Your task to perform on an android device: View the shopping cart on ebay. Search for logitech g903 on ebay, select the first entry, add it to the cart, then select checkout. Image 0: 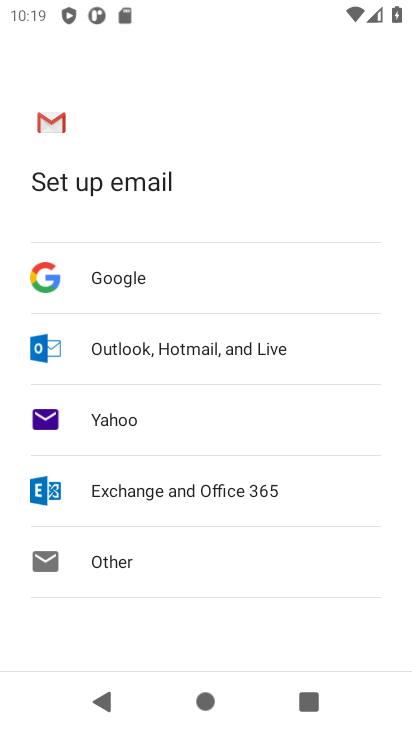
Step 0: press home button
Your task to perform on an android device: View the shopping cart on ebay. Search for logitech g903 on ebay, select the first entry, add it to the cart, then select checkout. Image 1: 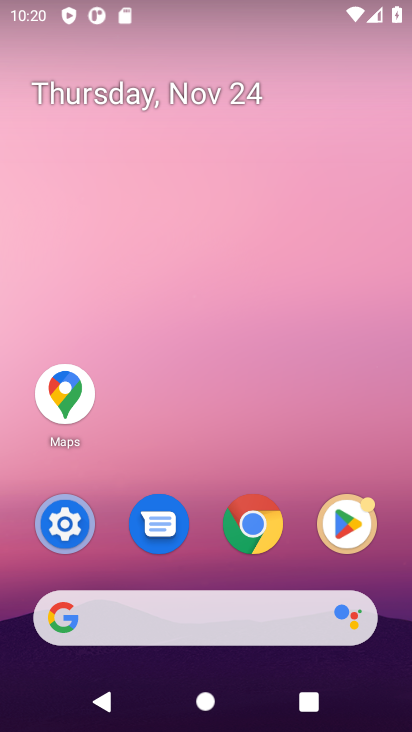
Step 1: click (242, 525)
Your task to perform on an android device: View the shopping cart on ebay. Search for logitech g903 on ebay, select the first entry, add it to the cart, then select checkout. Image 2: 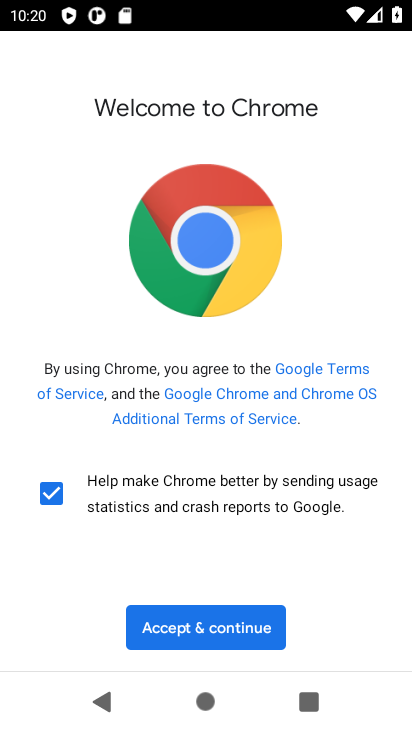
Step 2: click (196, 624)
Your task to perform on an android device: View the shopping cart on ebay. Search for logitech g903 on ebay, select the first entry, add it to the cart, then select checkout. Image 3: 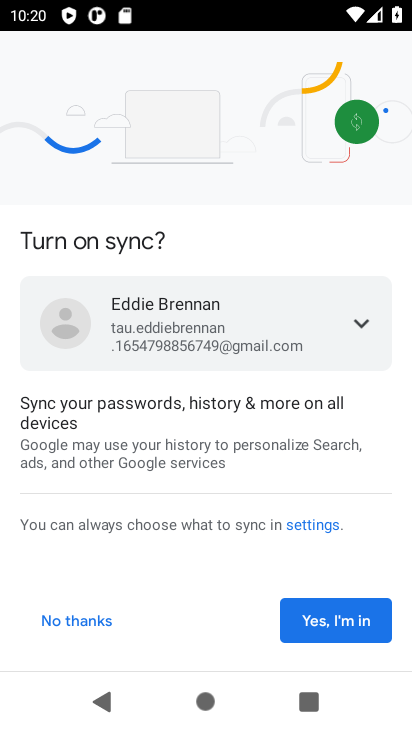
Step 3: click (99, 620)
Your task to perform on an android device: View the shopping cart on ebay. Search for logitech g903 on ebay, select the first entry, add it to the cart, then select checkout. Image 4: 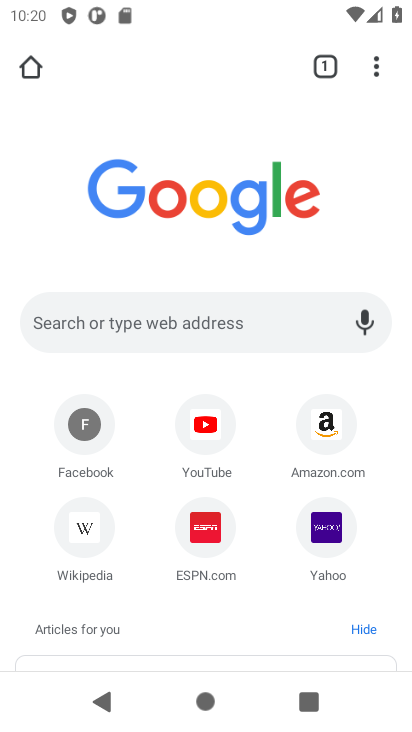
Step 4: click (154, 322)
Your task to perform on an android device: View the shopping cart on ebay. Search for logitech g903 on ebay, select the first entry, add it to the cart, then select checkout. Image 5: 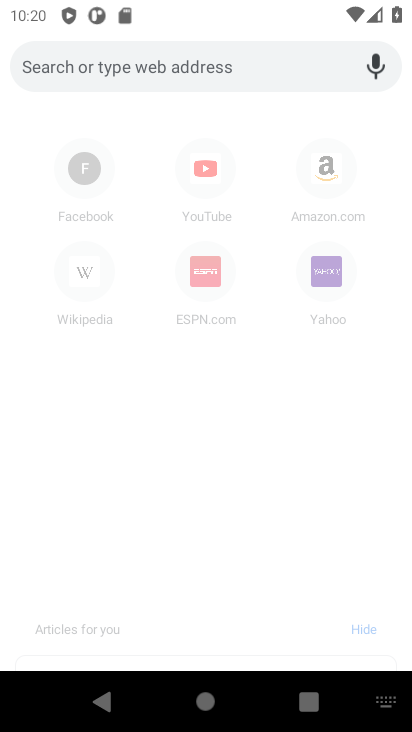
Step 5: type "ebay.com"
Your task to perform on an android device: View the shopping cart on ebay. Search for logitech g903 on ebay, select the first entry, add it to the cart, then select checkout. Image 6: 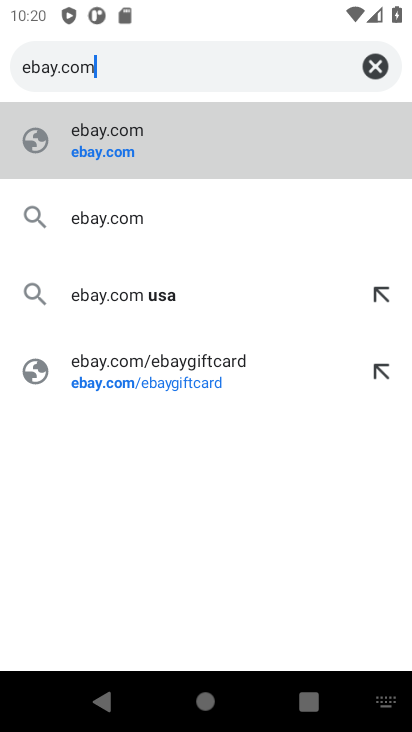
Step 6: click (95, 154)
Your task to perform on an android device: View the shopping cart on ebay. Search for logitech g903 on ebay, select the first entry, add it to the cart, then select checkout. Image 7: 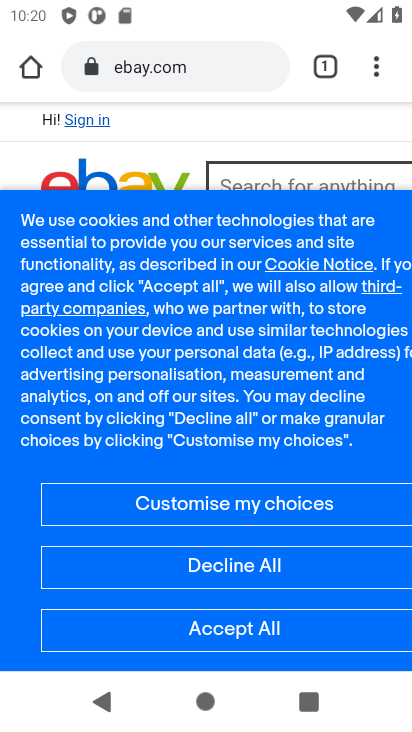
Step 7: click (340, 223)
Your task to perform on an android device: View the shopping cart on ebay. Search for logitech g903 on ebay, select the first entry, add it to the cart, then select checkout. Image 8: 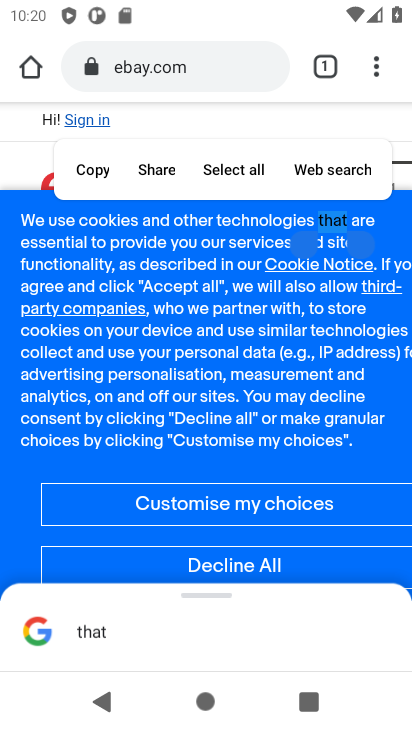
Step 8: drag from (250, 458) to (250, 408)
Your task to perform on an android device: View the shopping cart on ebay. Search for logitech g903 on ebay, select the first entry, add it to the cart, then select checkout. Image 9: 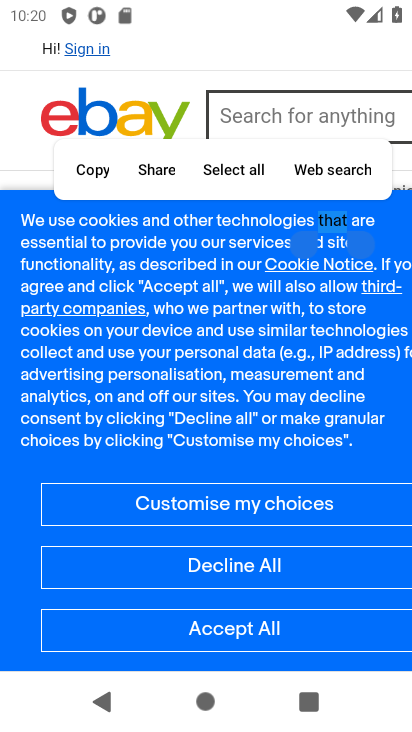
Step 9: click (238, 637)
Your task to perform on an android device: View the shopping cart on ebay. Search for logitech g903 on ebay, select the first entry, add it to the cart, then select checkout. Image 10: 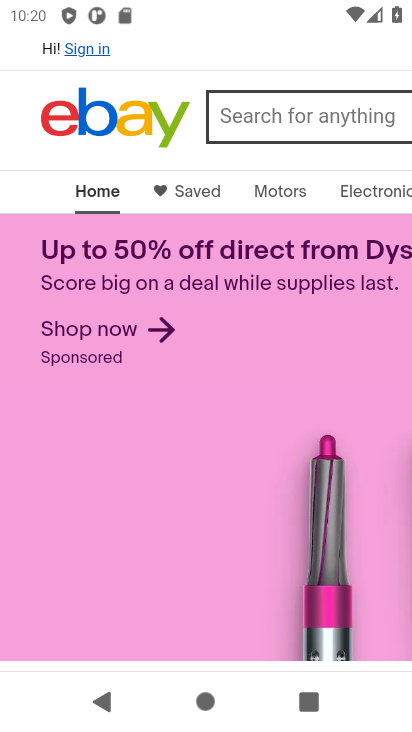
Step 10: drag from (333, 161) to (5, 178)
Your task to perform on an android device: View the shopping cart on ebay. Search for logitech g903 on ebay, select the first entry, add it to the cart, then select checkout. Image 11: 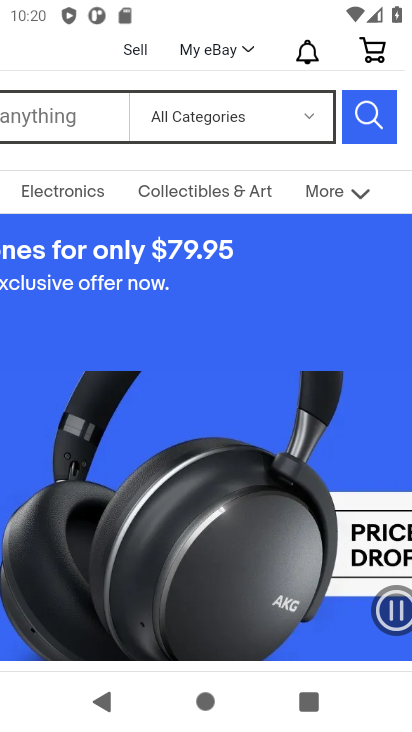
Step 11: click (368, 53)
Your task to perform on an android device: View the shopping cart on ebay. Search for logitech g903 on ebay, select the first entry, add it to the cart, then select checkout. Image 12: 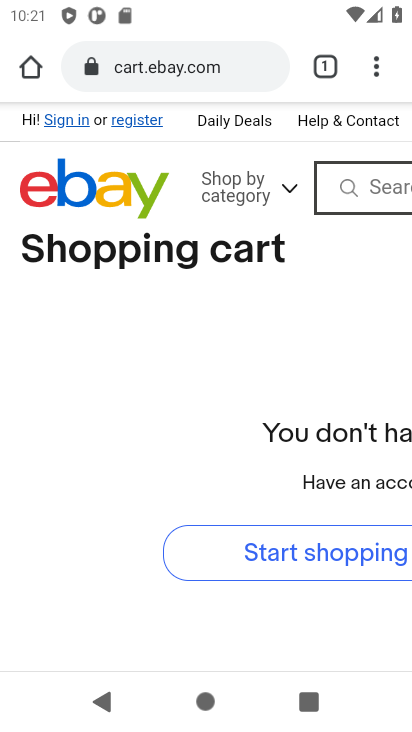
Step 12: click (376, 191)
Your task to perform on an android device: View the shopping cart on ebay. Search for logitech g903 on ebay, select the first entry, add it to the cart, then select checkout. Image 13: 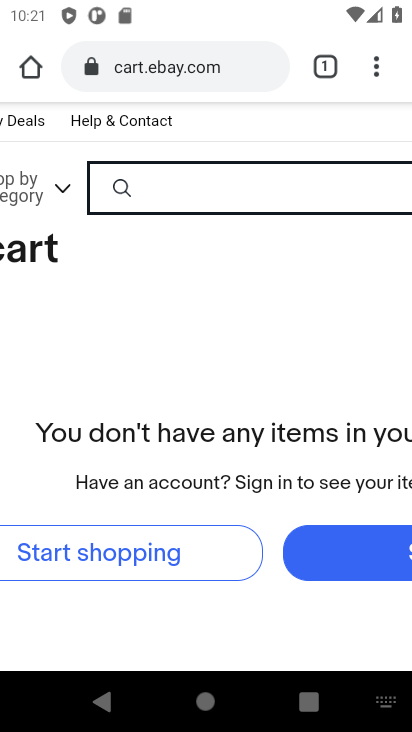
Step 13: type "logitech g903"
Your task to perform on an android device: View the shopping cart on ebay. Search for logitech g903 on ebay, select the first entry, add it to the cart, then select checkout. Image 14: 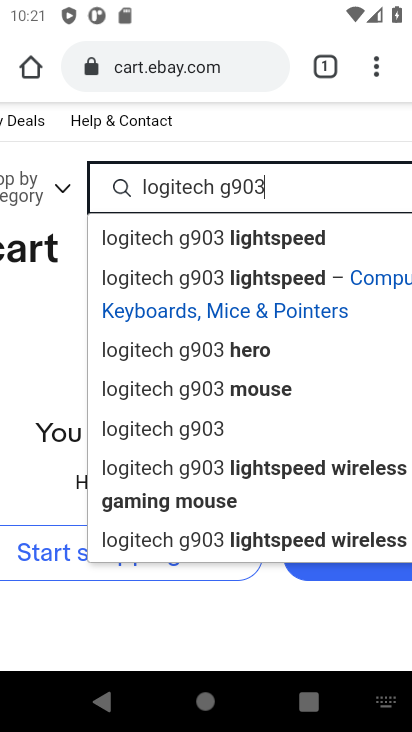
Step 14: drag from (353, 132) to (164, 151)
Your task to perform on an android device: View the shopping cart on ebay. Search for logitech g903 on ebay, select the first entry, add it to the cart, then select checkout. Image 15: 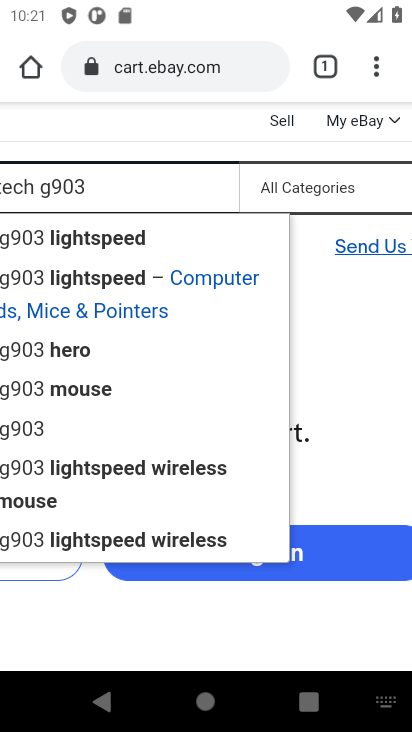
Step 15: drag from (343, 190) to (79, 210)
Your task to perform on an android device: View the shopping cart on ebay. Search for logitech g903 on ebay, select the first entry, add it to the cart, then select checkout. Image 16: 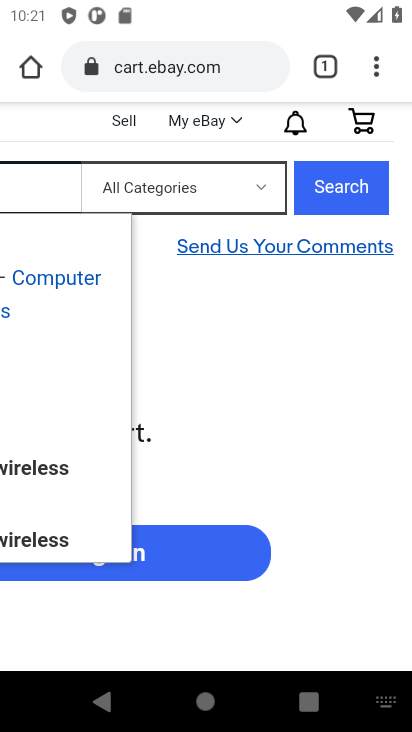
Step 16: click (322, 197)
Your task to perform on an android device: View the shopping cart on ebay. Search for logitech g903 on ebay, select the first entry, add it to the cart, then select checkout. Image 17: 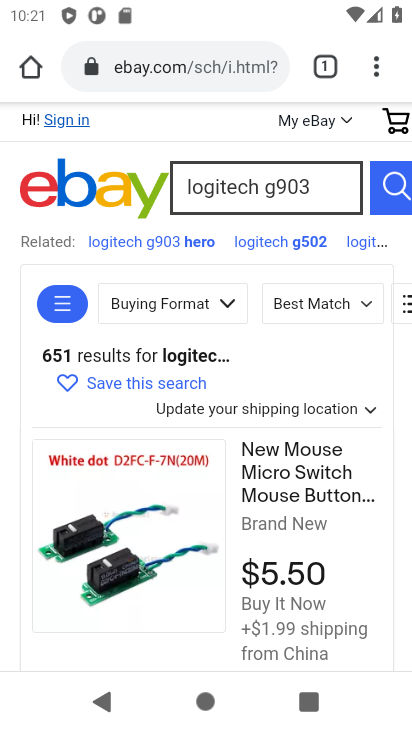
Step 17: task complete